Your task to perform on an android device: What is the news today? Image 0: 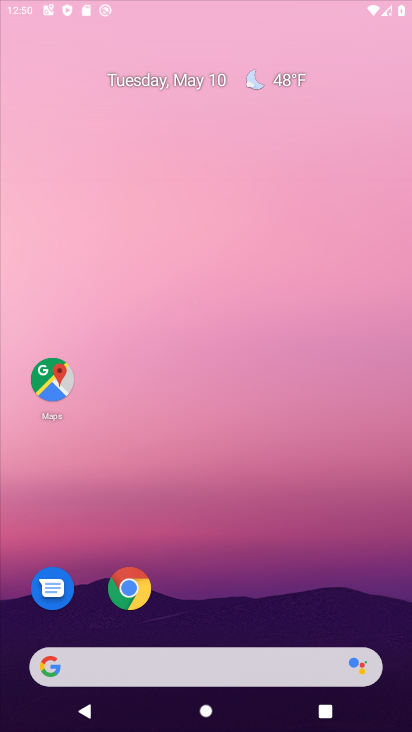
Step 0: click (259, 307)
Your task to perform on an android device: What is the news today? Image 1: 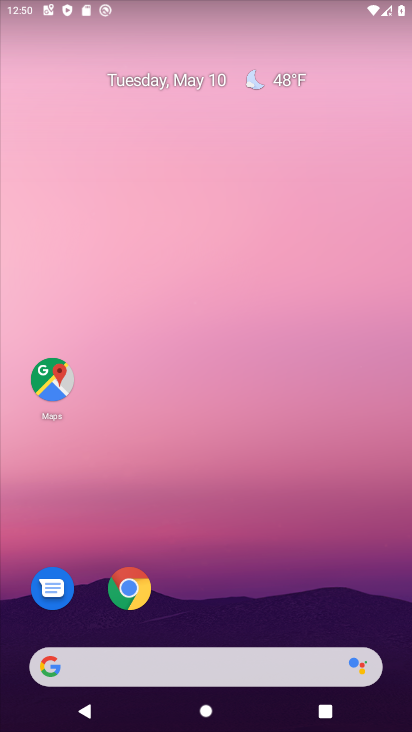
Step 1: drag from (204, 624) to (165, 271)
Your task to perform on an android device: What is the news today? Image 2: 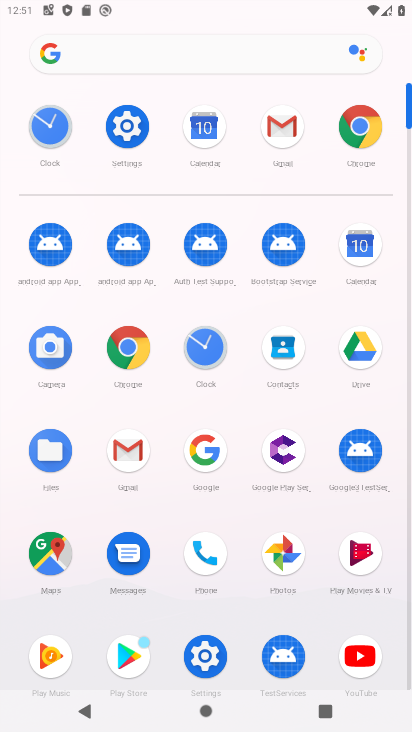
Step 2: click (123, 344)
Your task to perform on an android device: What is the news today? Image 3: 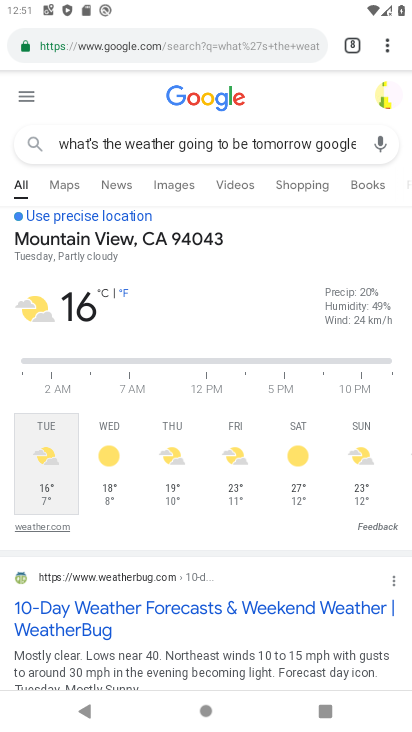
Step 3: click (376, 54)
Your task to perform on an android device: What is the news today? Image 4: 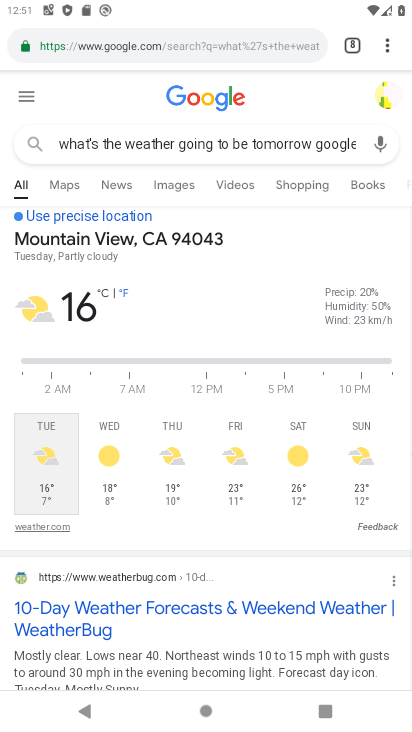
Step 4: click (384, 41)
Your task to perform on an android device: What is the news today? Image 5: 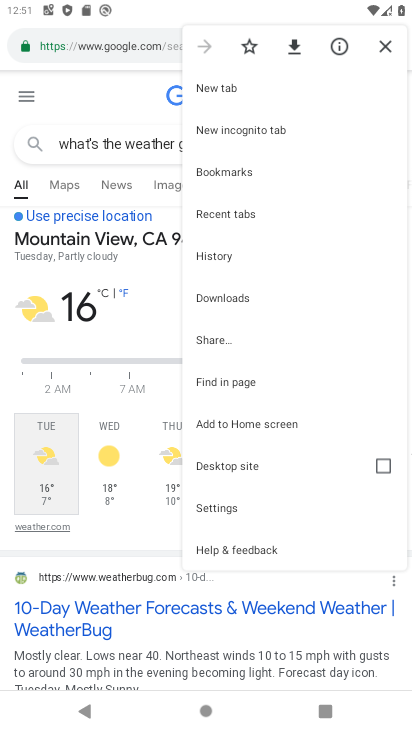
Step 5: click (241, 78)
Your task to perform on an android device: What is the news today? Image 6: 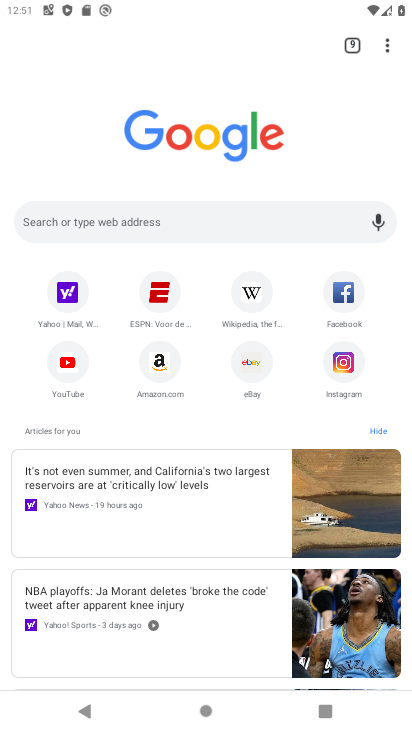
Step 6: click (249, 214)
Your task to perform on an android device: What is the news today? Image 7: 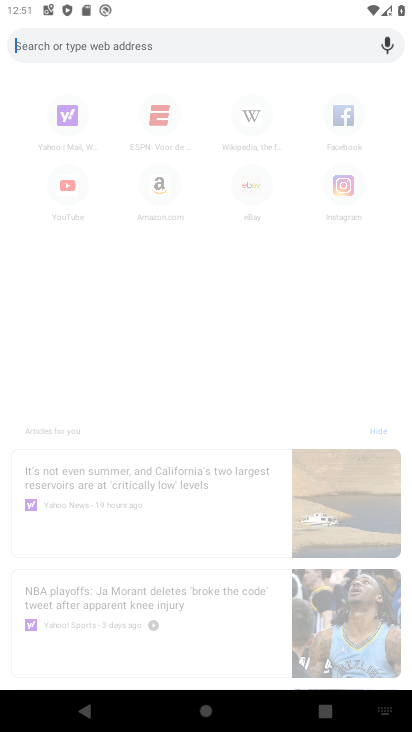
Step 7: type "What is the news today?"
Your task to perform on an android device: What is the news today? Image 8: 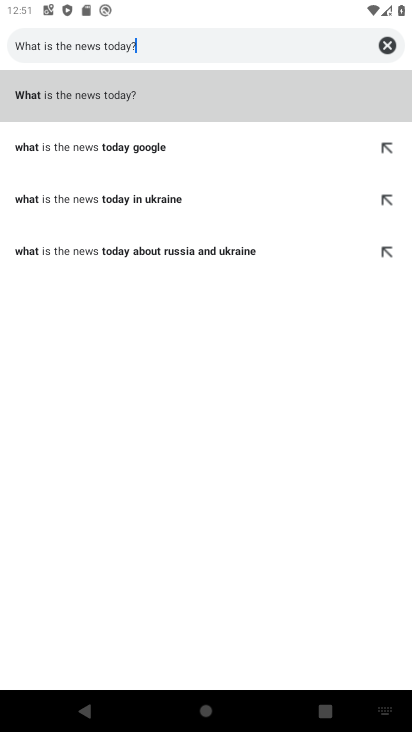
Step 8: click (329, 87)
Your task to perform on an android device: What is the news today? Image 9: 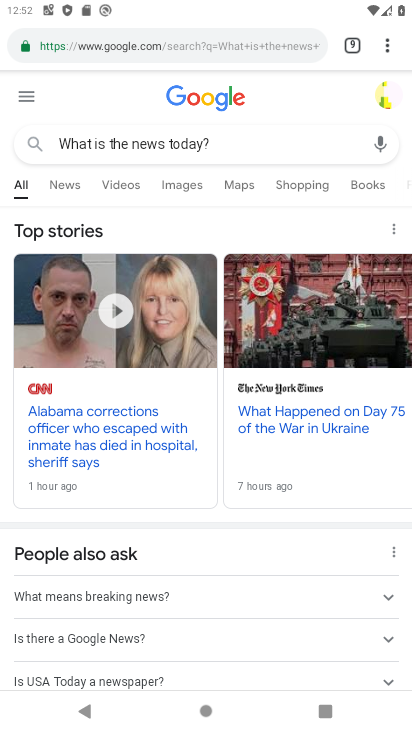
Step 9: task complete